Your task to perform on an android device: turn off javascript in the chrome app Image 0: 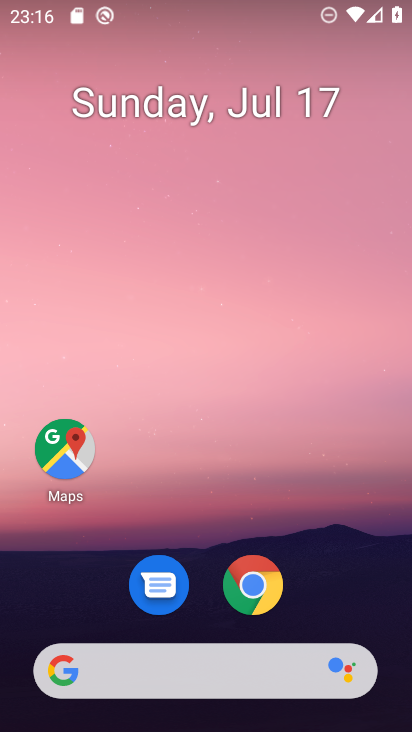
Step 0: click (261, 572)
Your task to perform on an android device: turn off javascript in the chrome app Image 1: 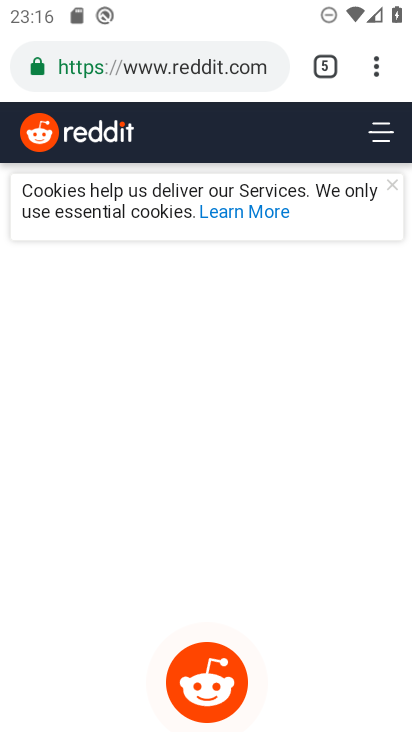
Step 1: drag from (372, 65) to (216, 583)
Your task to perform on an android device: turn off javascript in the chrome app Image 2: 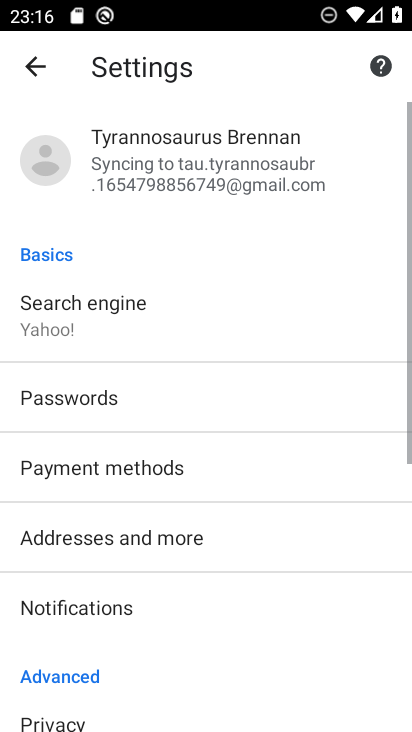
Step 2: drag from (211, 644) to (303, 73)
Your task to perform on an android device: turn off javascript in the chrome app Image 3: 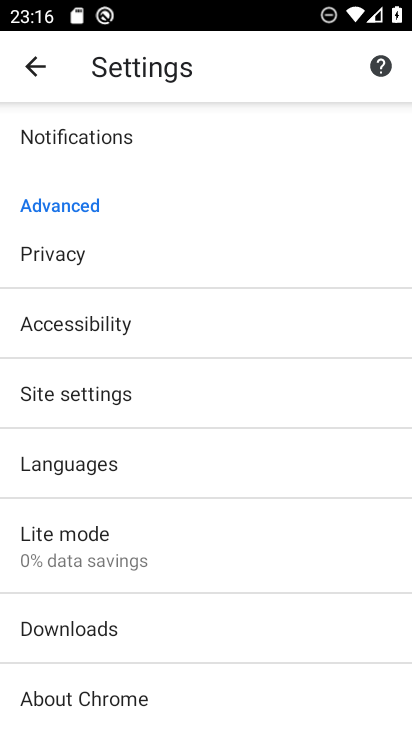
Step 3: click (120, 398)
Your task to perform on an android device: turn off javascript in the chrome app Image 4: 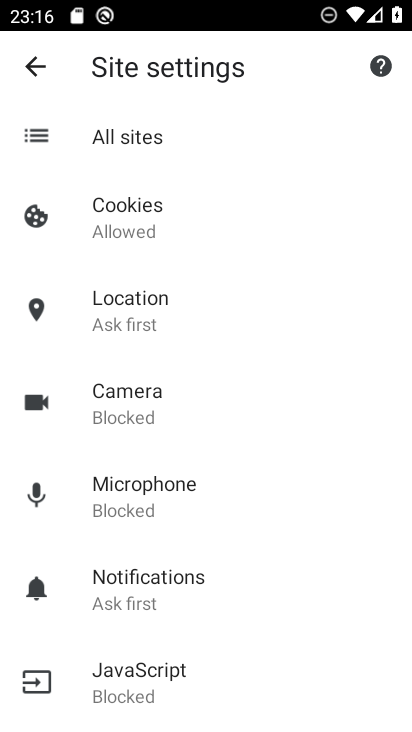
Step 4: click (158, 665)
Your task to perform on an android device: turn off javascript in the chrome app Image 5: 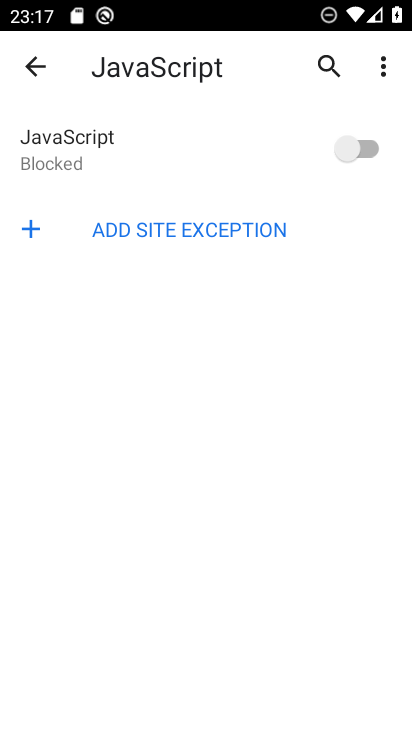
Step 5: task complete